Your task to perform on an android device: choose inbox layout in the gmail app Image 0: 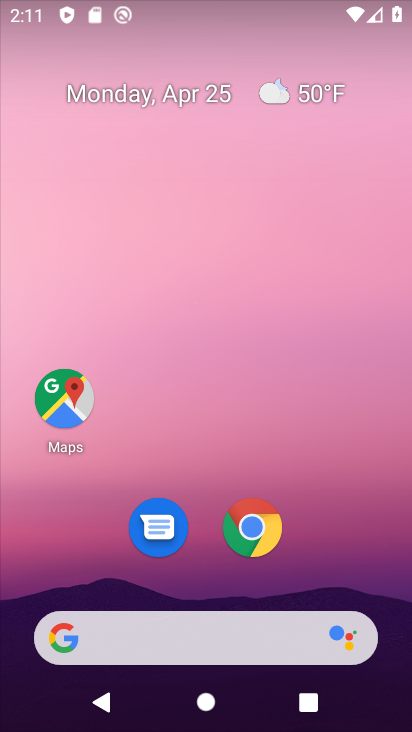
Step 0: drag from (359, 555) to (323, 24)
Your task to perform on an android device: choose inbox layout in the gmail app Image 1: 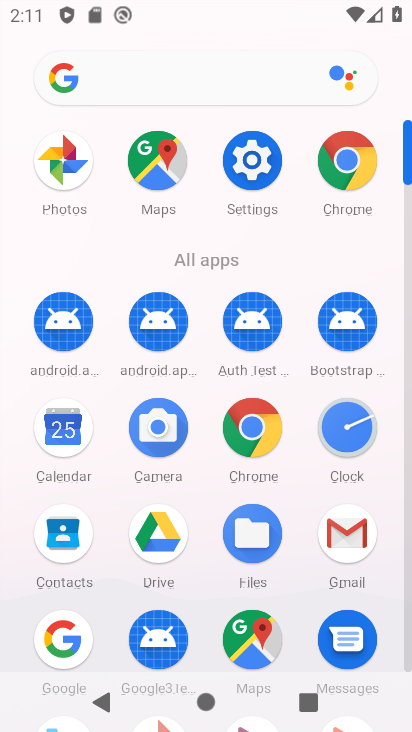
Step 1: click (340, 535)
Your task to perform on an android device: choose inbox layout in the gmail app Image 2: 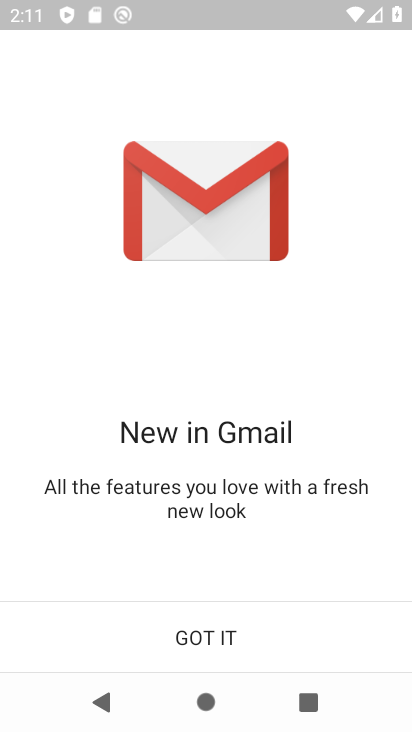
Step 2: click (211, 637)
Your task to perform on an android device: choose inbox layout in the gmail app Image 3: 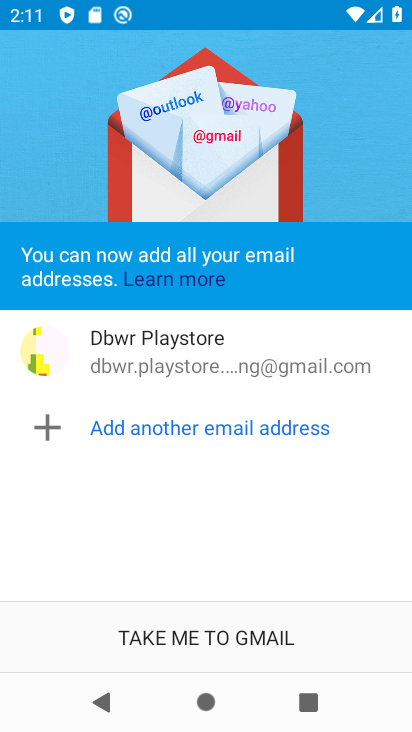
Step 3: click (212, 630)
Your task to perform on an android device: choose inbox layout in the gmail app Image 4: 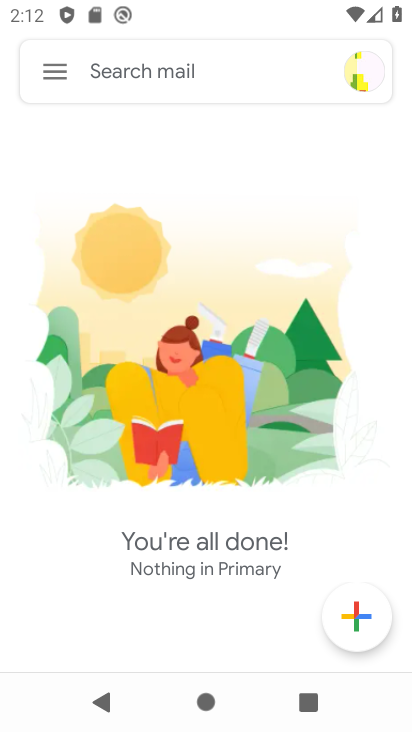
Step 4: drag from (304, 429) to (300, 220)
Your task to perform on an android device: choose inbox layout in the gmail app Image 5: 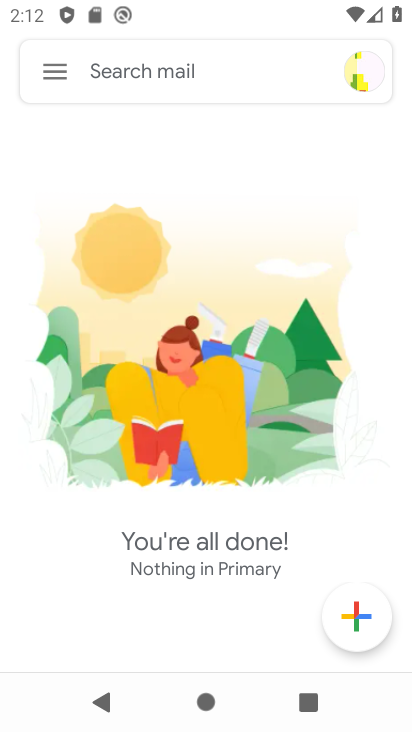
Step 5: click (57, 66)
Your task to perform on an android device: choose inbox layout in the gmail app Image 6: 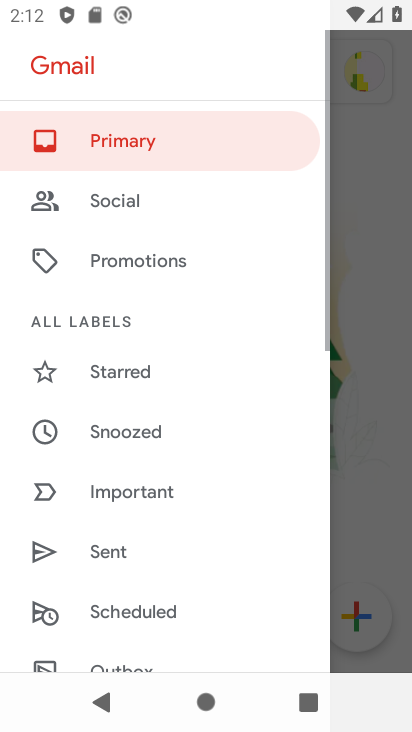
Step 6: drag from (182, 566) to (175, 197)
Your task to perform on an android device: choose inbox layout in the gmail app Image 7: 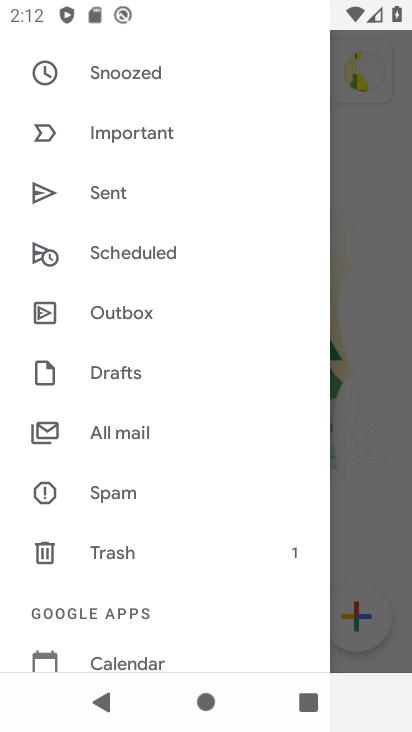
Step 7: drag from (150, 592) to (160, 300)
Your task to perform on an android device: choose inbox layout in the gmail app Image 8: 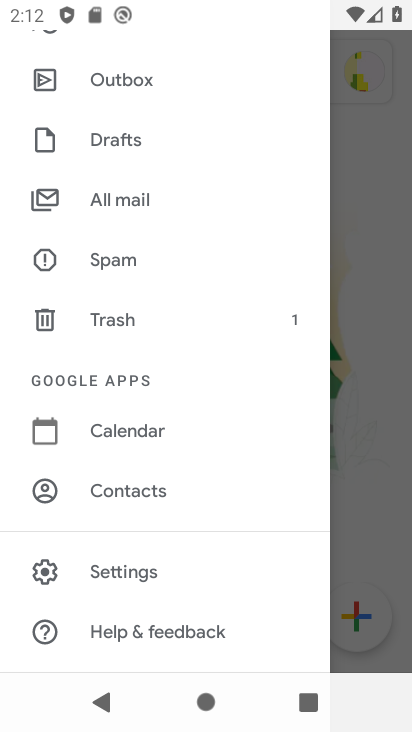
Step 8: click (139, 561)
Your task to perform on an android device: choose inbox layout in the gmail app Image 9: 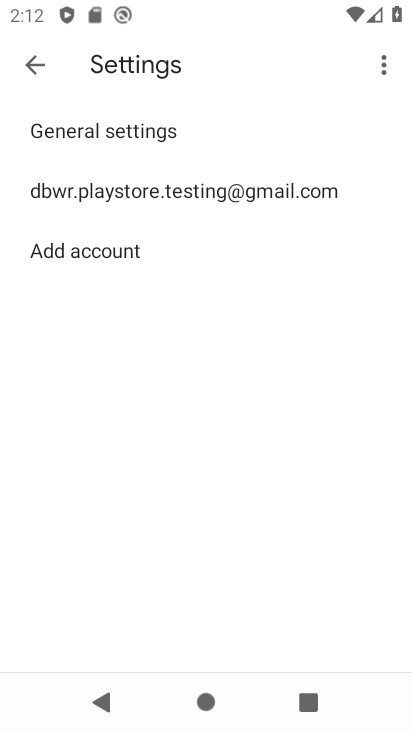
Step 9: click (150, 196)
Your task to perform on an android device: choose inbox layout in the gmail app Image 10: 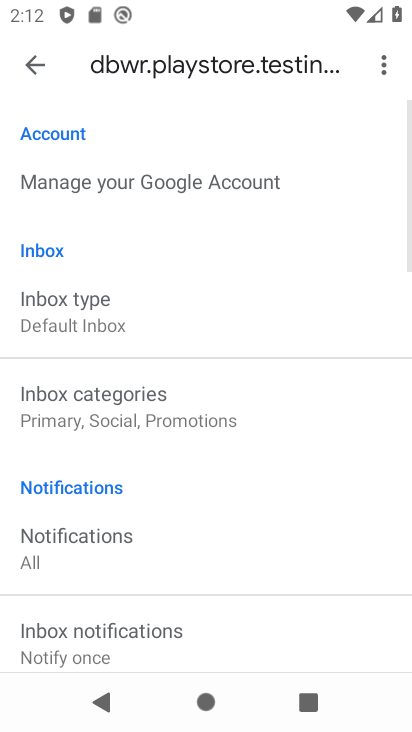
Step 10: click (129, 317)
Your task to perform on an android device: choose inbox layout in the gmail app Image 11: 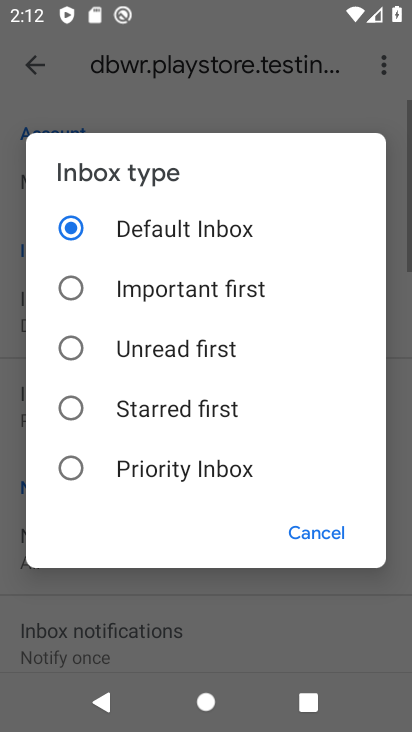
Step 11: click (150, 339)
Your task to perform on an android device: choose inbox layout in the gmail app Image 12: 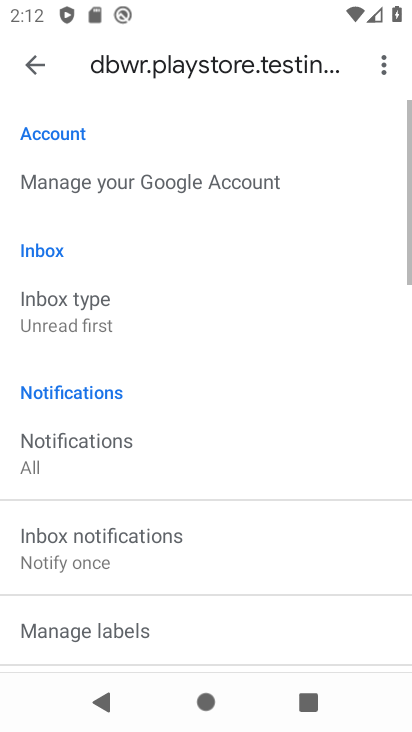
Step 12: task complete